Your task to perform on an android device: open app "DoorDash - Food Delivery" Image 0: 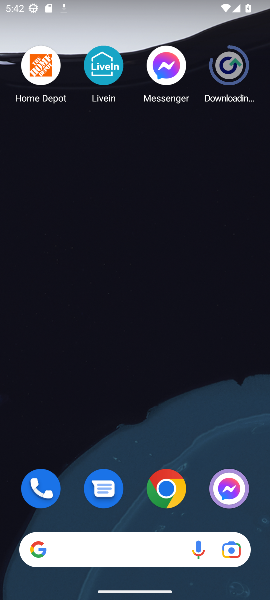
Step 0: drag from (145, 516) to (66, 207)
Your task to perform on an android device: open app "DoorDash - Food Delivery" Image 1: 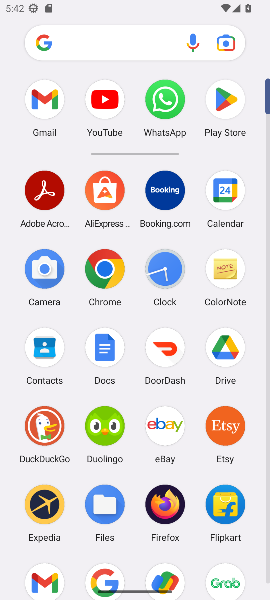
Step 1: click (229, 112)
Your task to perform on an android device: open app "DoorDash - Food Delivery" Image 2: 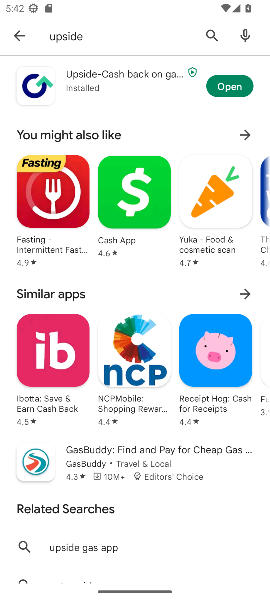
Step 2: click (205, 42)
Your task to perform on an android device: open app "DoorDash - Food Delivery" Image 3: 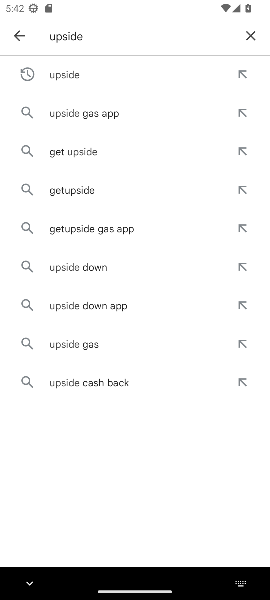
Step 3: click (259, 46)
Your task to perform on an android device: open app "DoorDash - Food Delivery" Image 4: 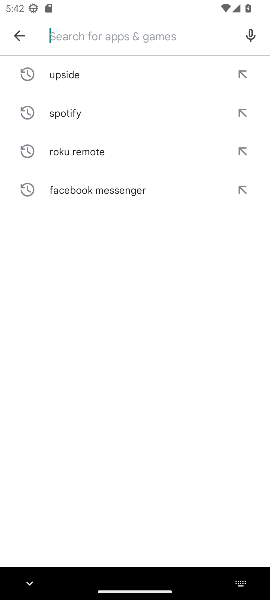
Step 4: type "doordash"
Your task to perform on an android device: open app "DoorDash - Food Delivery" Image 5: 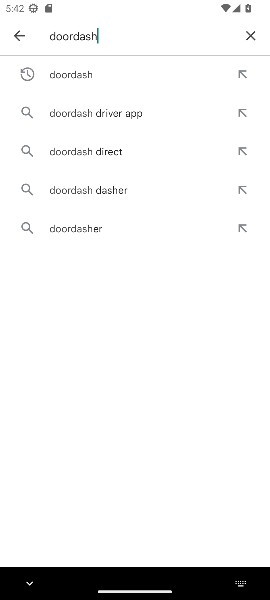
Step 5: click (80, 76)
Your task to perform on an android device: open app "DoorDash - Food Delivery" Image 6: 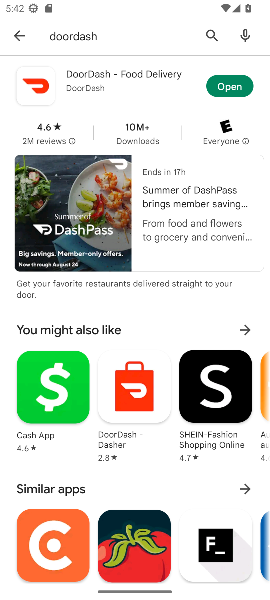
Step 6: click (220, 80)
Your task to perform on an android device: open app "DoorDash - Food Delivery" Image 7: 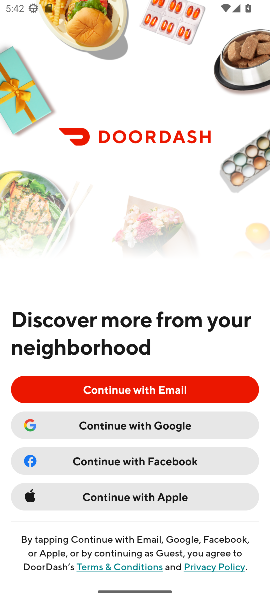
Step 7: task complete